Your task to perform on an android device: Search for pizza restaurants on Maps Image 0: 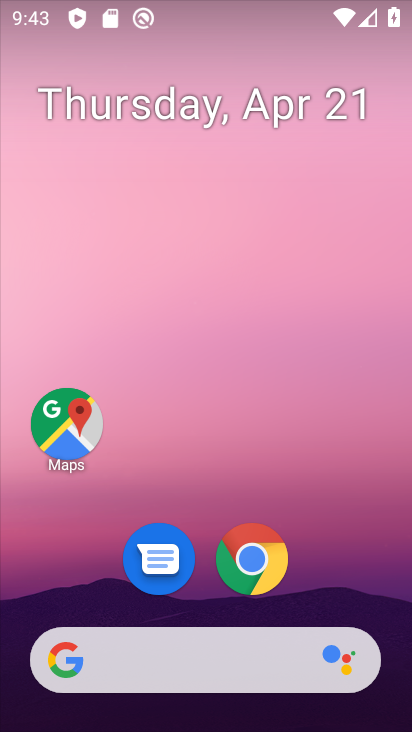
Step 0: drag from (280, 584) to (394, 208)
Your task to perform on an android device: Search for pizza restaurants on Maps Image 1: 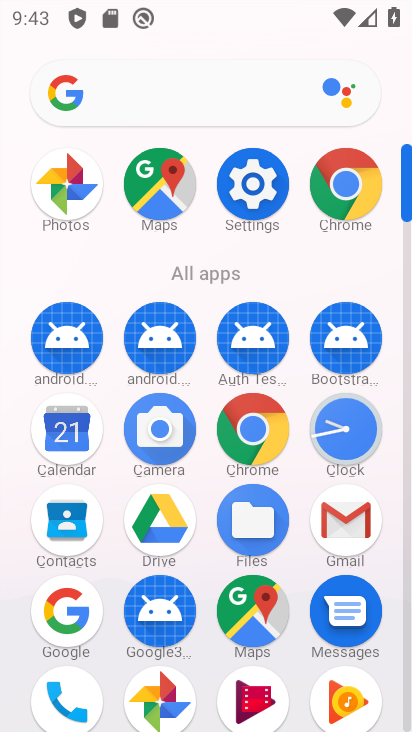
Step 1: click (163, 194)
Your task to perform on an android device: Search for pizza restaurants on Maps Image 2: 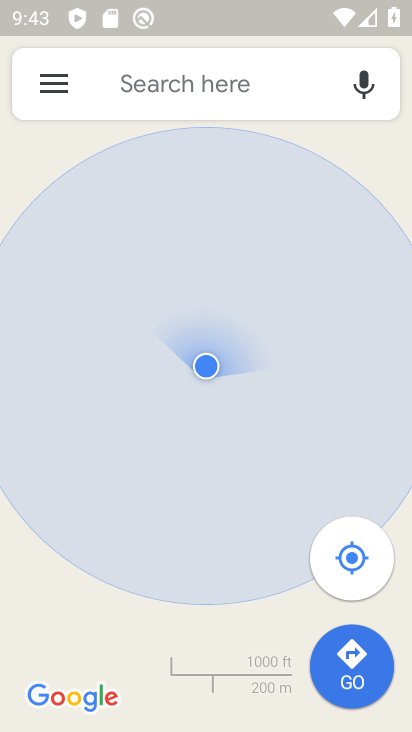
Step 2: click (180, 84)
Your task to perform on an android device: Search for pizza restaurants on Maps Image 3: 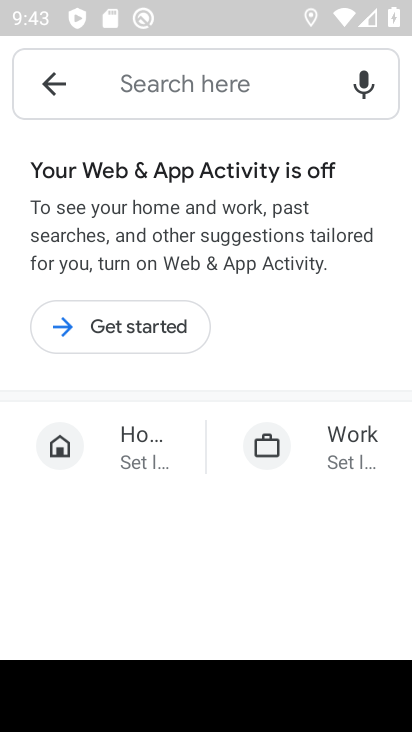
Step 3: drag from (386, 721) to (373, 684)
Your task to perform on an android device: Search for pizza restaurants on Maps Image 4: 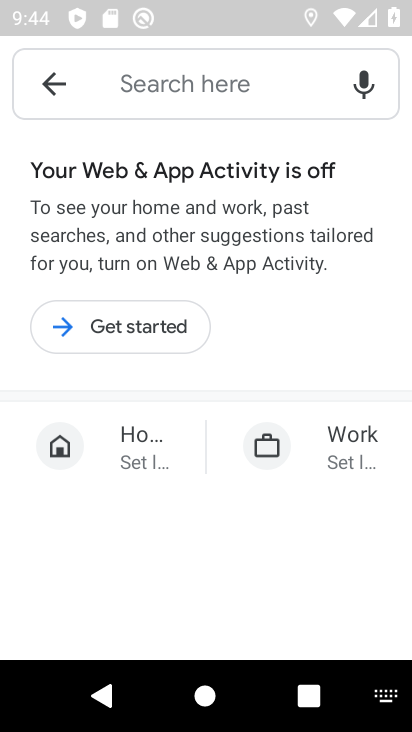
Step 4: click (383, 693)
Your task to perform on an android device: Search for pizza restaurants on Maps Image 5: 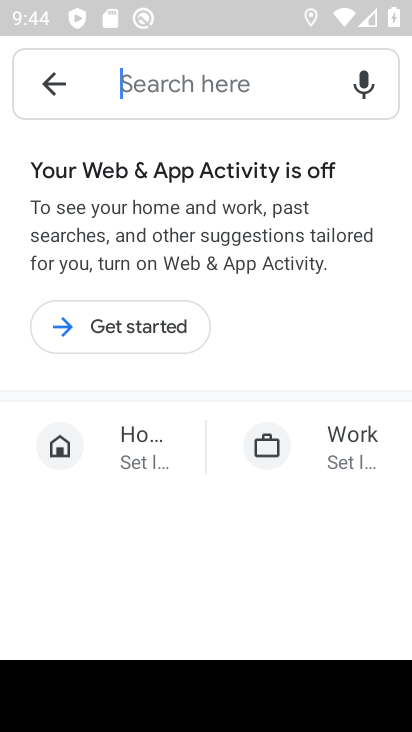
Step 5: drag from (378, 692) to (398, 512)
Your task to perform on an android device: Search for pizza restaurants on Maps Image 6: 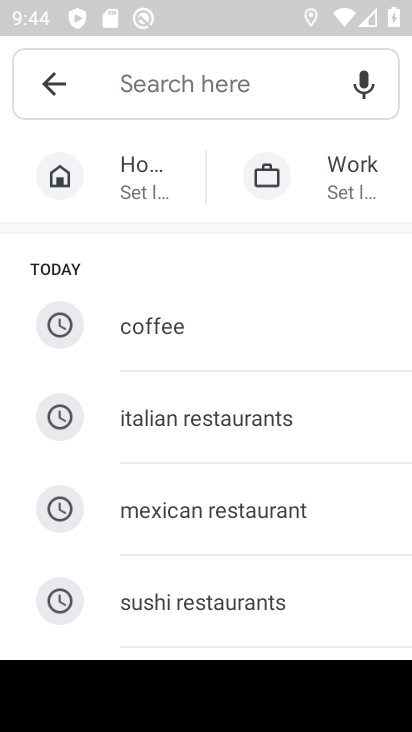
Step 6: click (382, 697)
Your task to perform on an android device: Search for pizza restaurants on Maps Image 7: 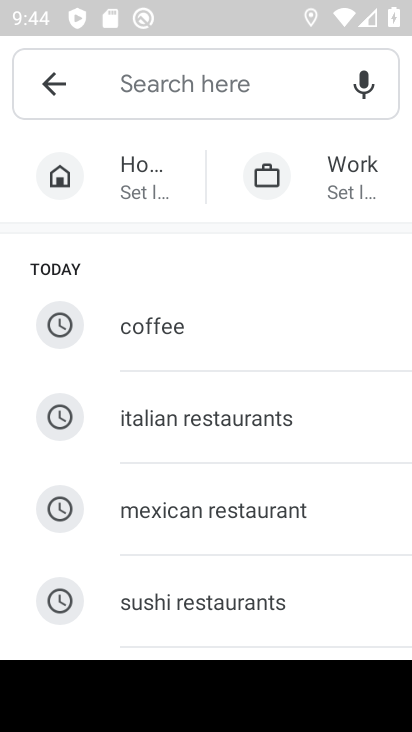
Step 7: drag from (380, 709) to (367, 499)
Your task to perform on an android device: Search for pizza restaurants on Maps Image 8: 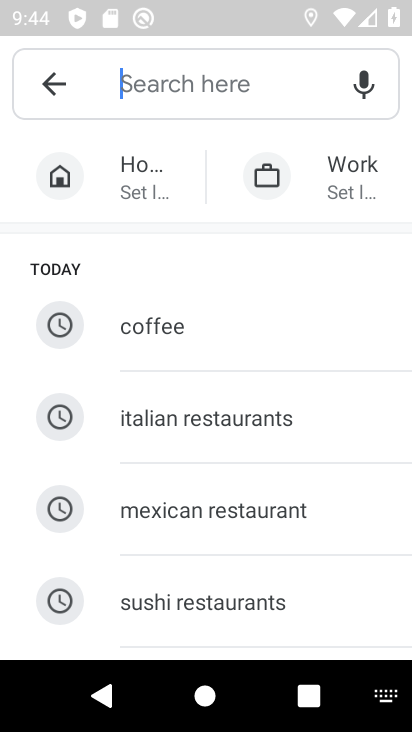
Step 8: click (391, 690)
Your task to perform on an android device: Search for pizza restaurants on Maps Image 9: 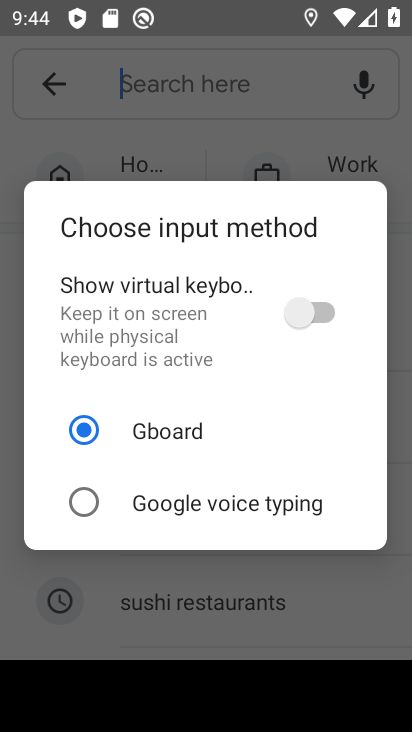
Step 9: click (314, 321)
Your task to perform on an android device: Search for pizza restaurants on Maps Image 10: 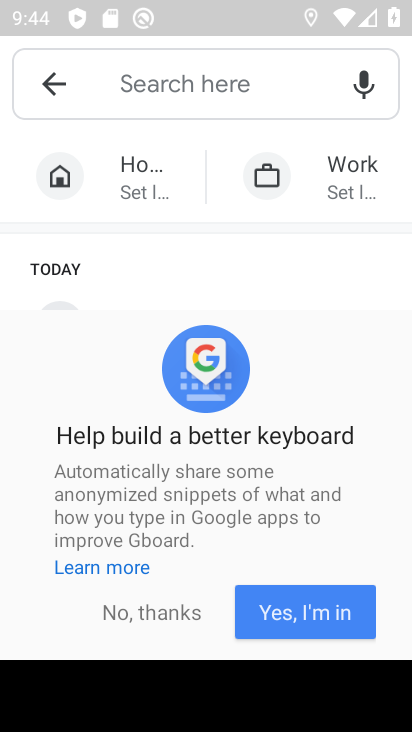
Step 10: click (160, 602)
Your task to perform on an android device: Search for pizza restaurants on Maps Image 11: 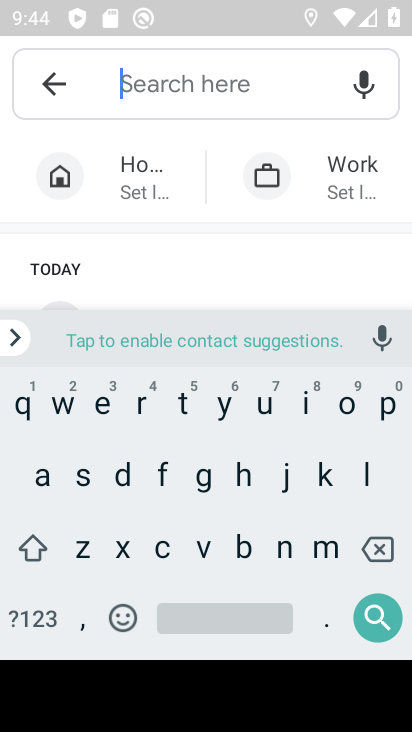
Step 11: click (385, 409)
Your task to perform on an android device: Search for pizza restaurants on Maps Image 12: 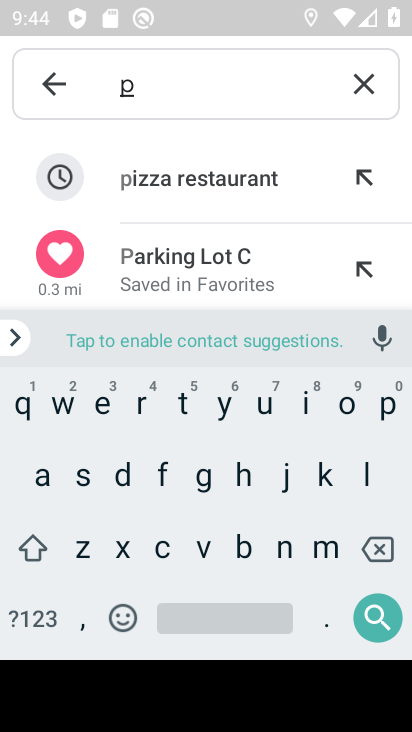
Step 12: click (235, 183)
Your task to perform on an android device: Search for pizza restaurants on Maps Image 13: 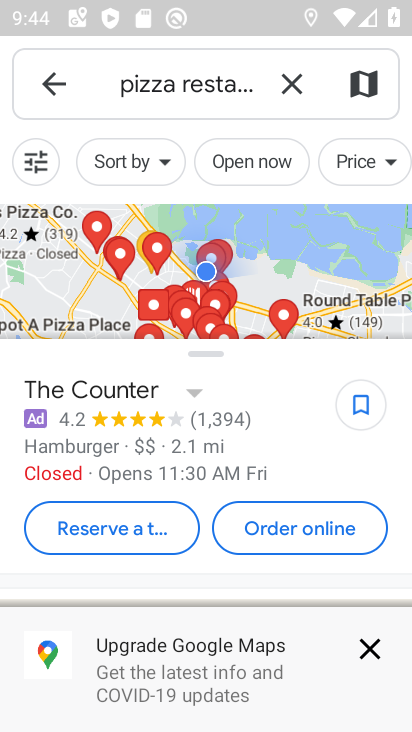
Step 13: click (359, 653)
Your task to perform on an android device: Search for pizza restaurants on Maps Image 14: 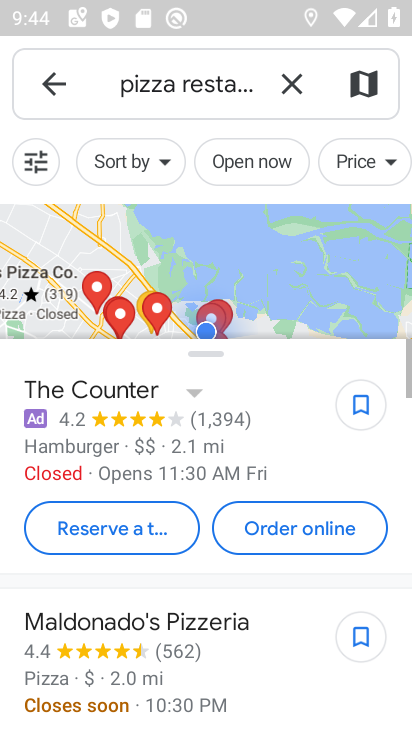
Step 14: click (140, 276)
Your task to perform on an android device: Search for pizza restaurants on Maps Image 15: 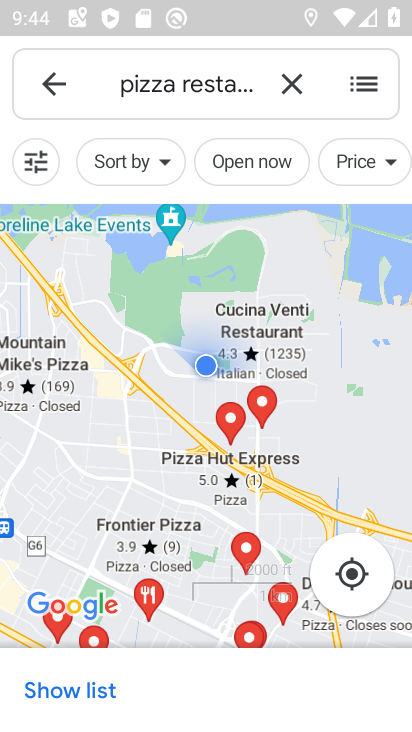
Step 15: task complete